Your task to perform on an android device: turn off location Image 0: 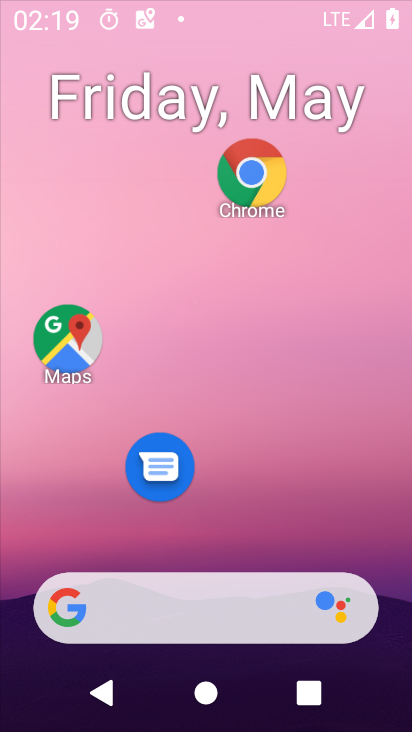
Step 0: press home button
Your task to perform on an android device: turn off location Image 1: 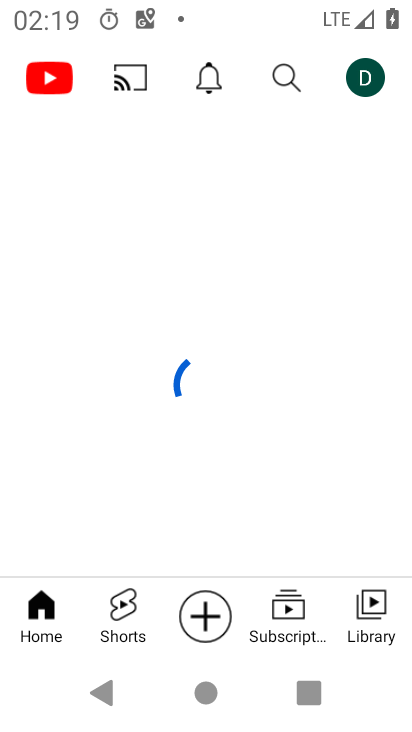
Step 1: drag from (234, 605) to (165, 198)
Your task to perform on an android device: turn off location Image 2: 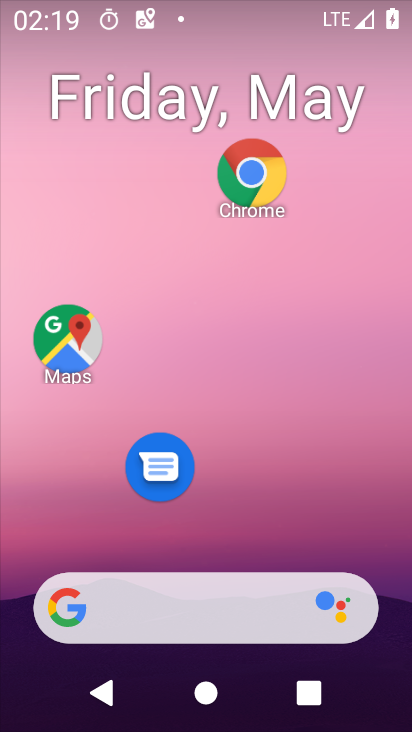
Step 2: drag from (263, 664) to (224, 228)
Your task to perform on an android device: turn off location Image 3: 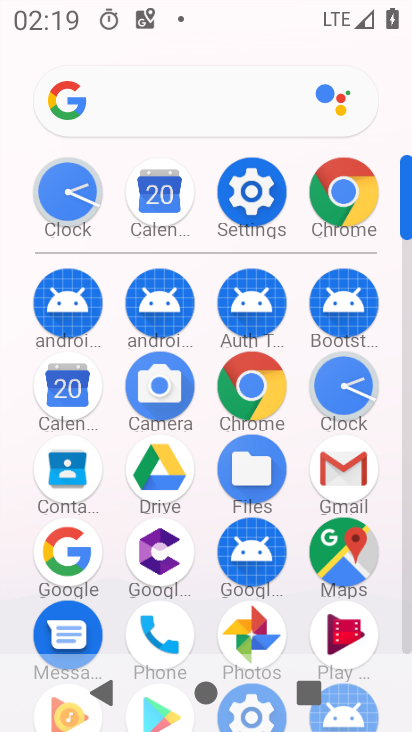
Step 3: click (239, 209)
Your task to perform on an android device: turn off location Image 4: 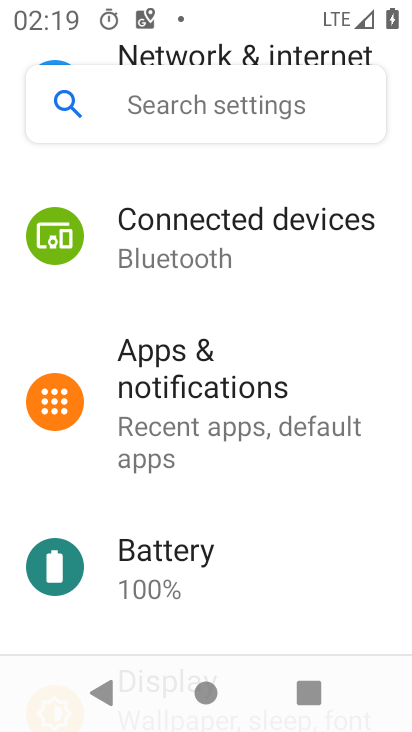
Step 4: click (200, 118)
Your task to perform on an android device: turn off location Image 5: 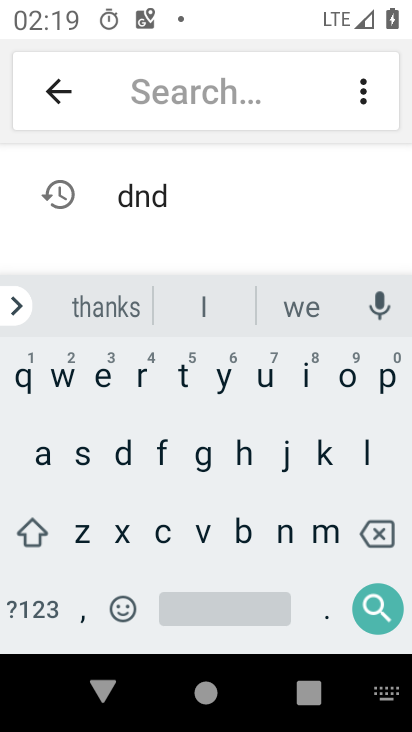
Step 5: click (372, 450)
Your task to perform on an android device: turn off location Image 6: 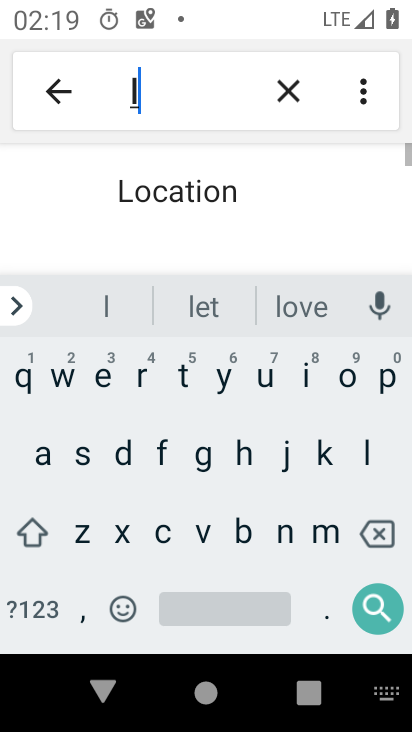
Step 6: click (355, 401)
Your task to perform on an android device: turn off location Image 7: 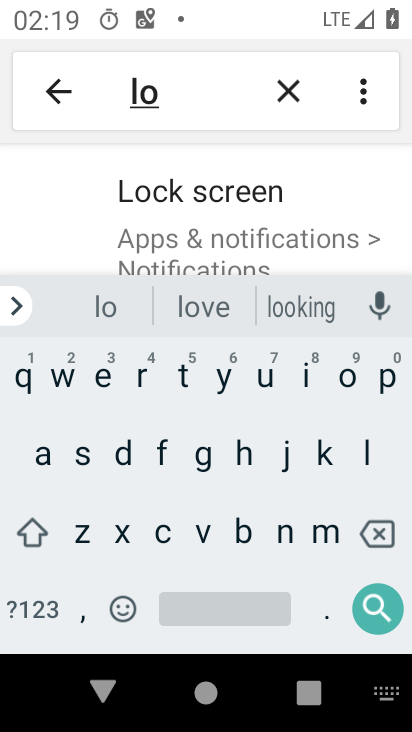
Step 7: press back button
Your task to perform on an android device: turn off location Image 8: 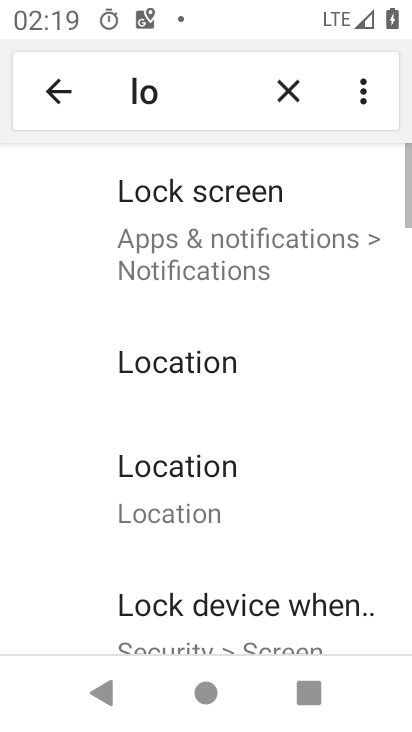
Step 8: click (149, 488)
Your task to perform on an android device: turn off location Image 9: 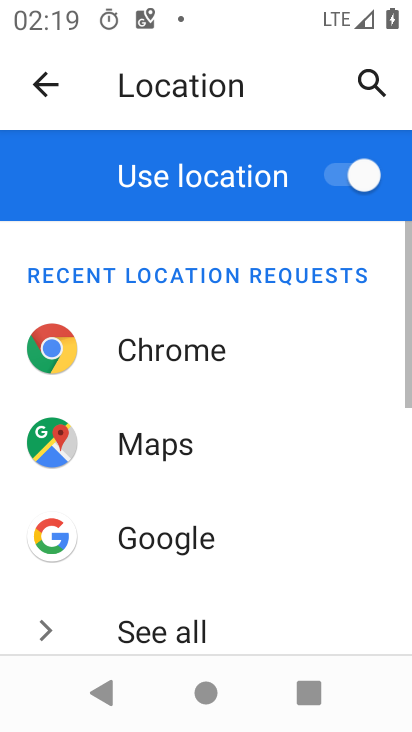
Step 9: click (348, 183)
Your task to perform on an android device: turn off location Image 10: 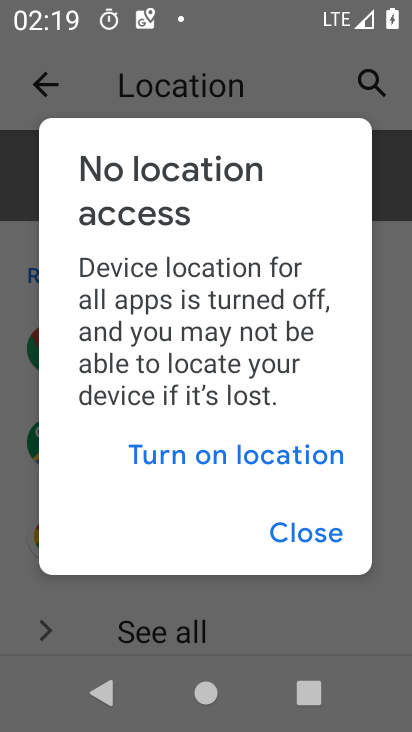
Step 10: click (320, 566)
Your task to perform on an android device: turn off location Image 11: 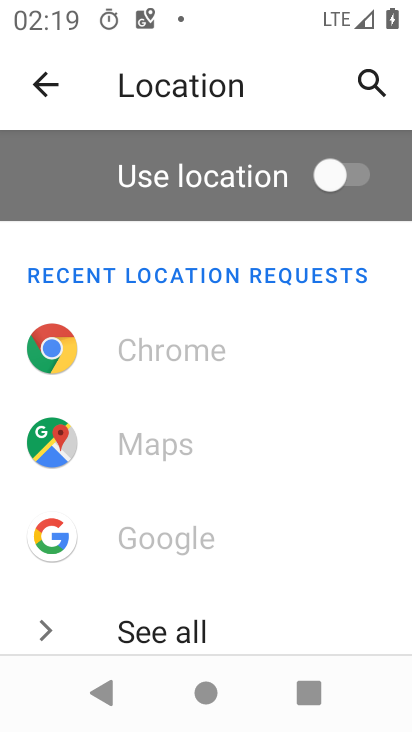
Step 11: task complete